Your task to perform on an android device: move a message to another label in the gmail app Image 0: 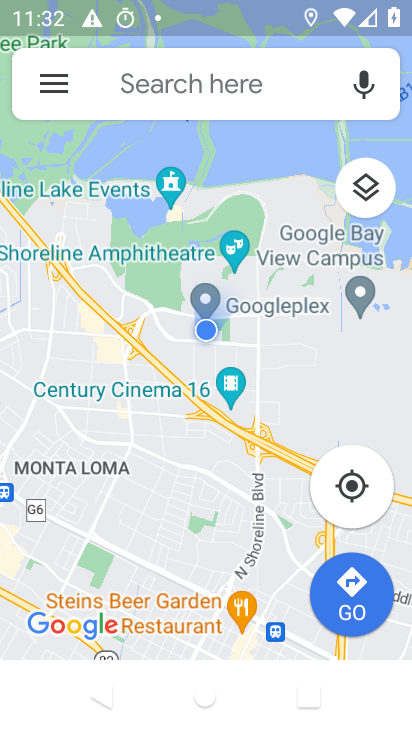
Step 0: press back button
Your task to perform on an android device: move a message to another label in the gmail app Image 1: 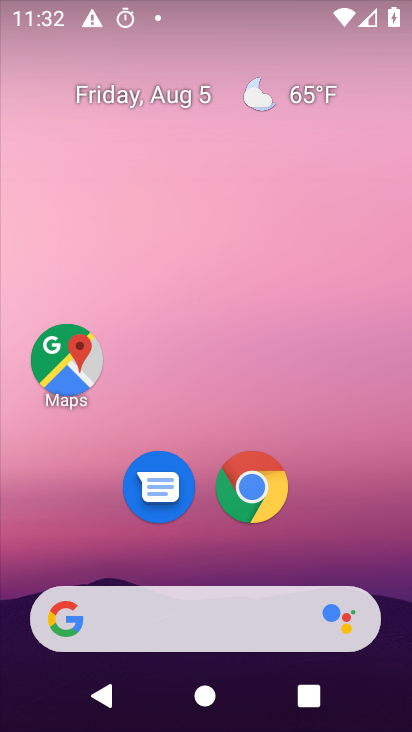
Step 1: drag from (203, 455) to (246, 84)
Your task to perform on an android device: move a message to another label in the gmail app Image 2: 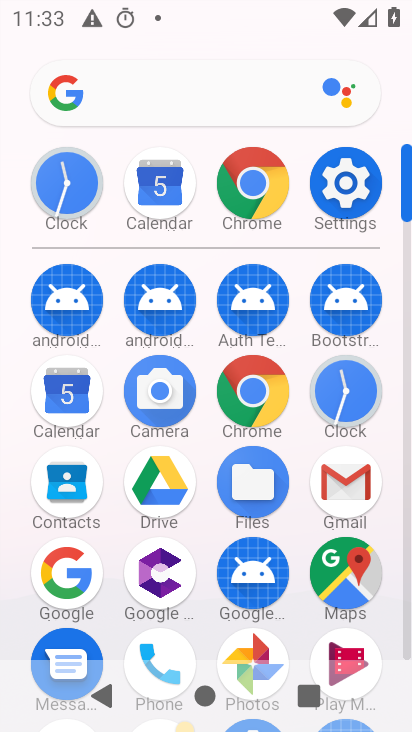
Step 2: click (346, 480)
Your task to perform on an android device: move a message to another label in the gmail app Image 3: 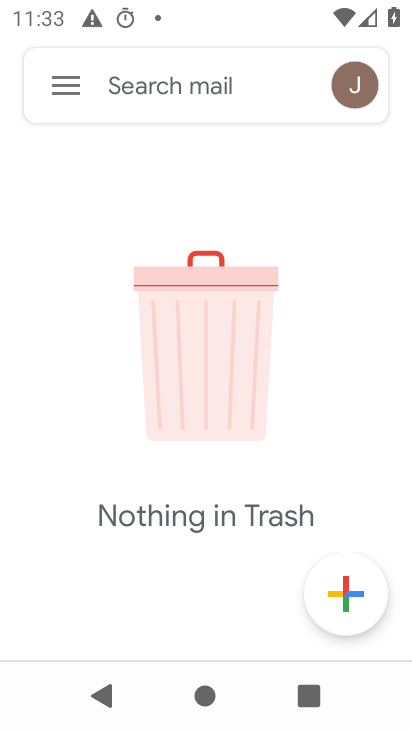
Step 3: click (53, 78)
Your task to perform on an android device: move a message to another label in the gmail app Image 4: 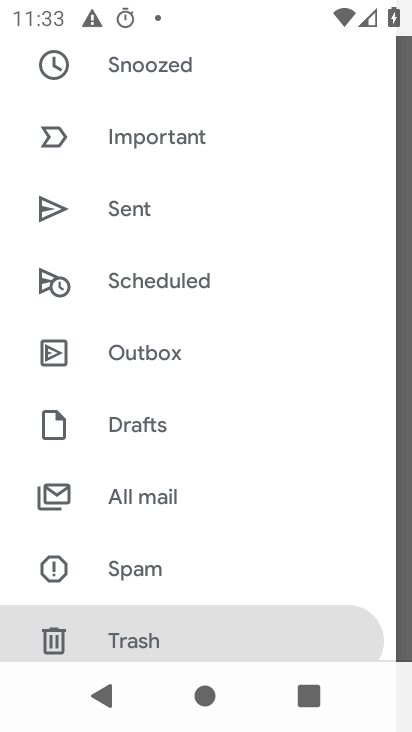
Step 4: click (149, 489)
Your task to perform on an android device: move a message to another label in the gmail app Image 5: 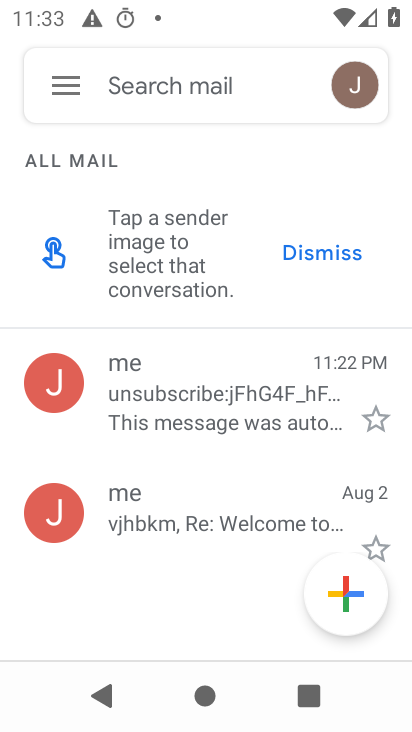
Step 5: click (200, 407)
Your task to perform on an android device: move a message to another label in the gmail app Image 6: 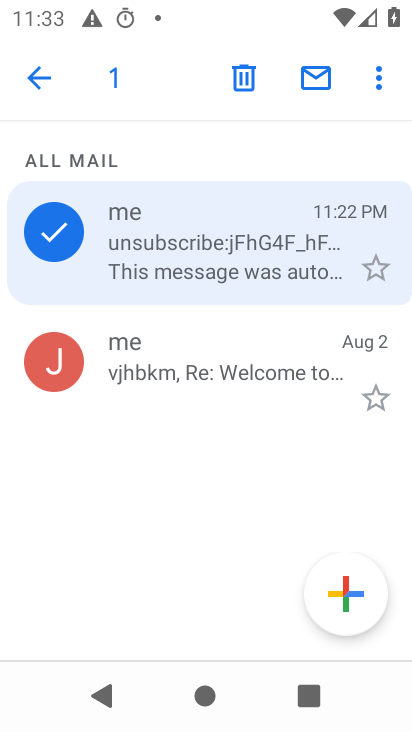
Step 6: click (367, 84)
Your task to perform on an android device: move a message to another label in the gmail app Image 7: 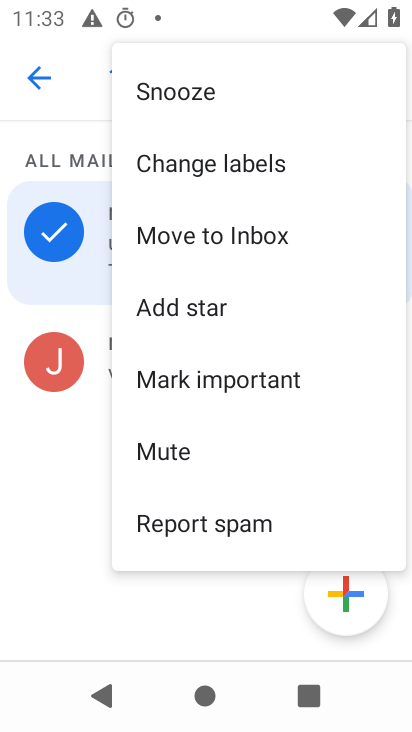
Step 7: click (227, 162)
Your task to perform on an android device: move a message to another label in the gmail app Image 8: 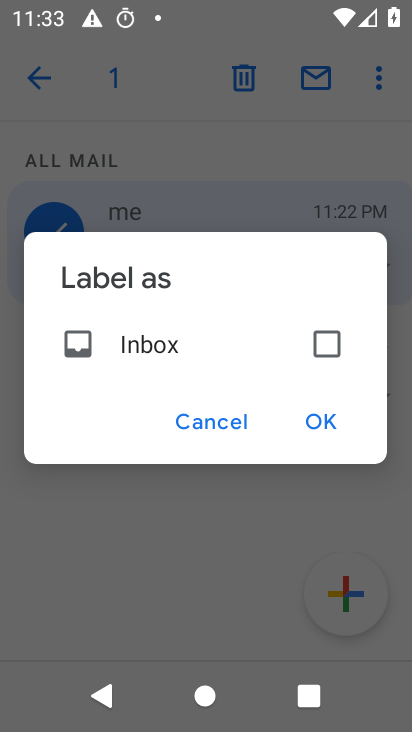
Step 8: click (330, 337)
Your task to perform on an android device: move a message to another label in the gmail app Image 9: 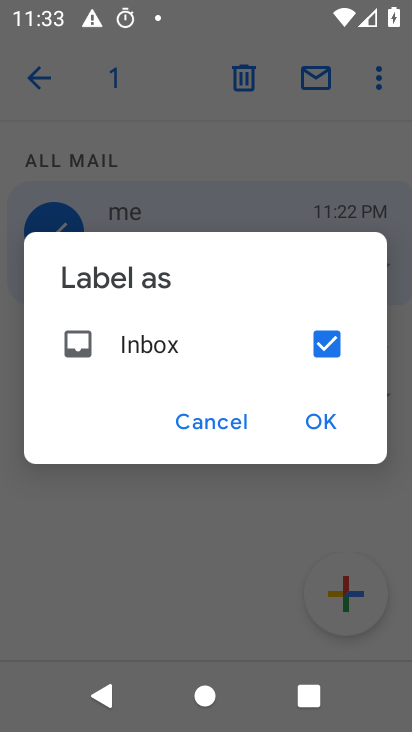
Step 9: click (329, 421)
Your task to perform on an android device: move a message to another label in the gmail app Image 10: 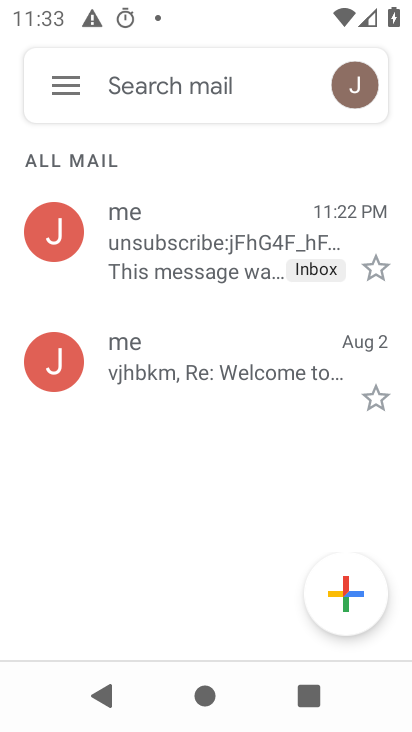
Step 10: task complete